Your task to perform on an android device: see sites visited before in the chrome app Image 0: 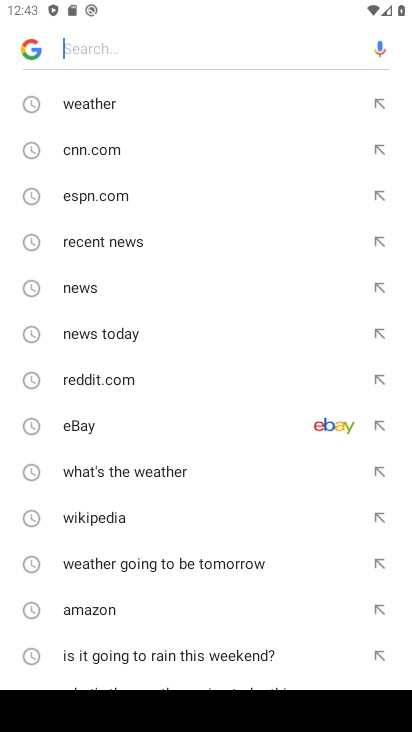
Step 0: press home button
Your task to perform on an android device: see sites visited before in the chrome app Image 1: 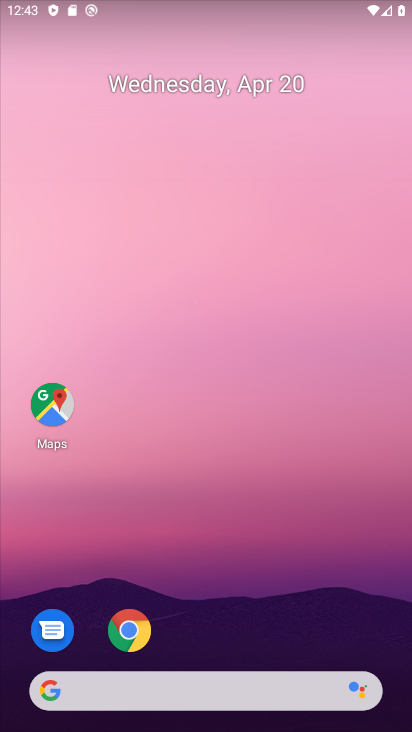
Step 1: click (136, 624)
Your task to perform on an android device: see sites visited before in the chrome app Image 2: 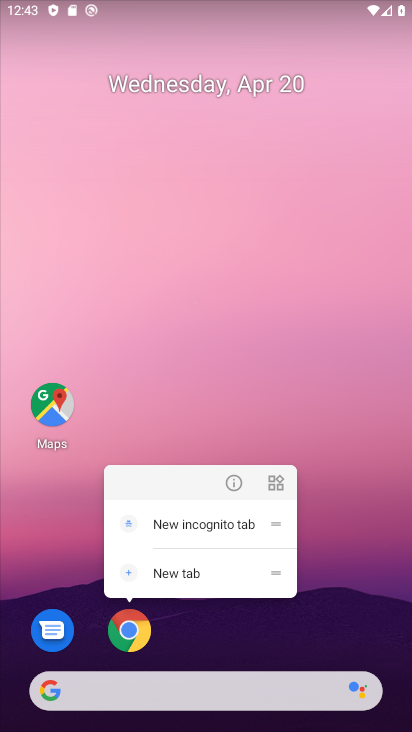
Step 2: click (131, 622)
Your task to perform on an android device: see sites visited before in the chrome app Image 3: 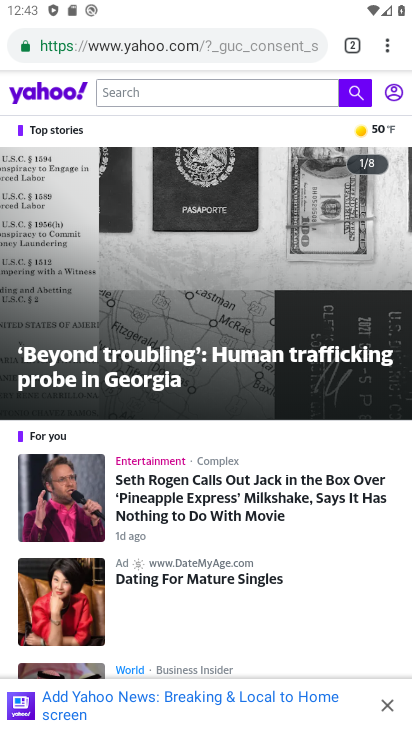
Step 3: task complete